Your task to perform on an android device: Search for hotels in London Image 0: 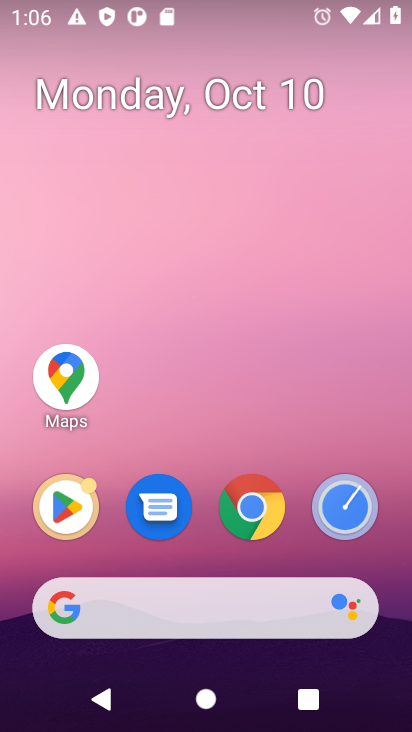
Step 0: press home button
Your task to perform on an android device: Search for hotels in London Image 1: 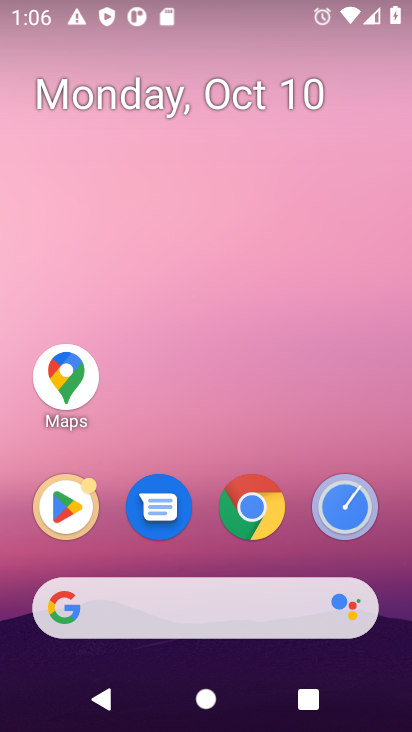
Step 1: press home button
Your task to perform on an android device: Search for hotels in London Image 2: 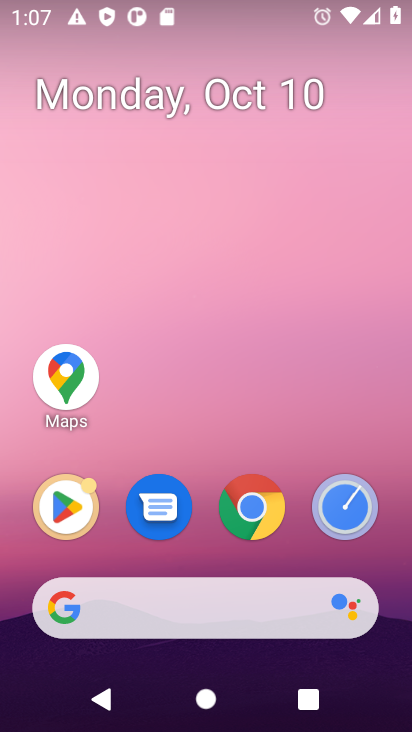
Step 2: click (174, 613)
Your task to perform on an android device: Search for hotels in London Image 3: 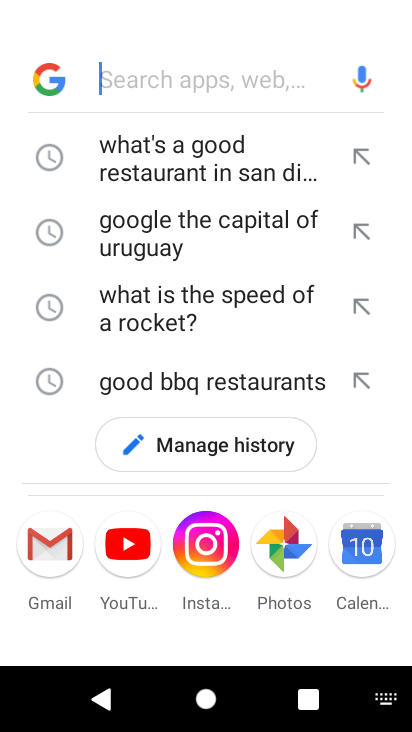
Step 3: type "Search for hotels in London"
Your task to perform on an android device: Search for hotels in London Image 4: 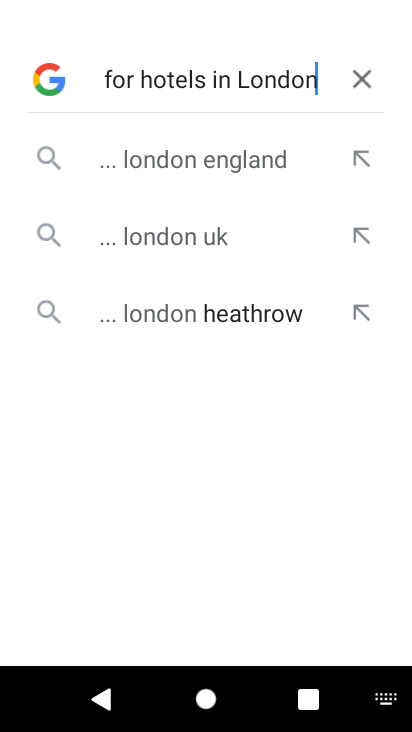
Step 4: press enter
Your task to perform on an android device: Search for hotels in London Image 5: 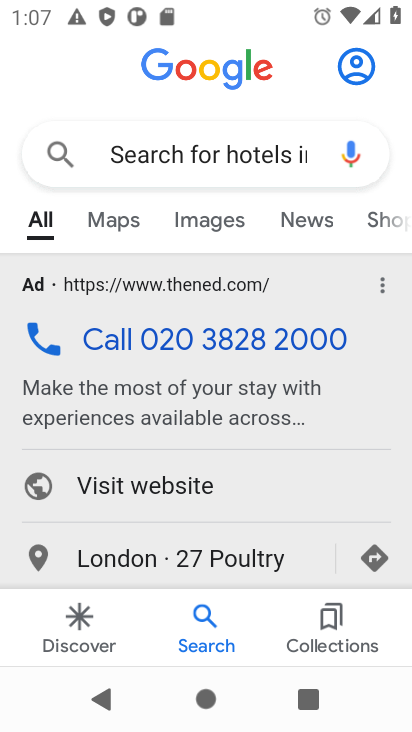
Step 5: drag from (306, 497) to (309, 258)
Your task to perform on an android device: Search for hotels in London Image 6: 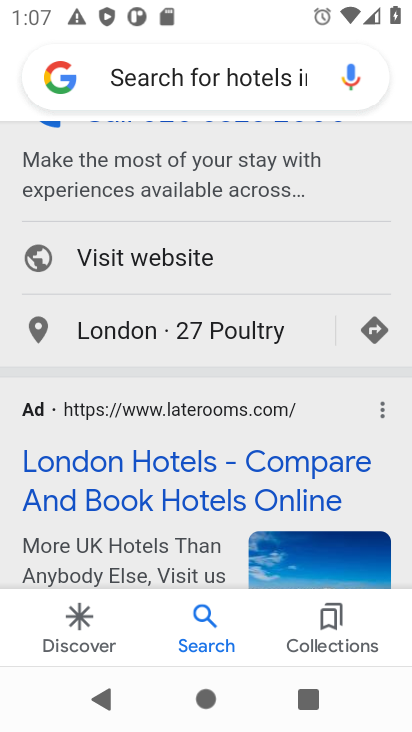
Step 6: click (216, 472)
Your task to perform on an android device: Search for hotels in London Image 7: 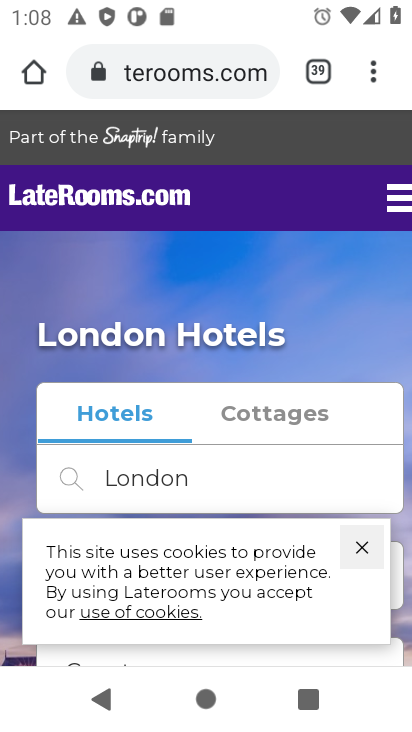
Step 7: click (362, 545)
Your task to perform on an android device: Search for hotels in London Image 8: 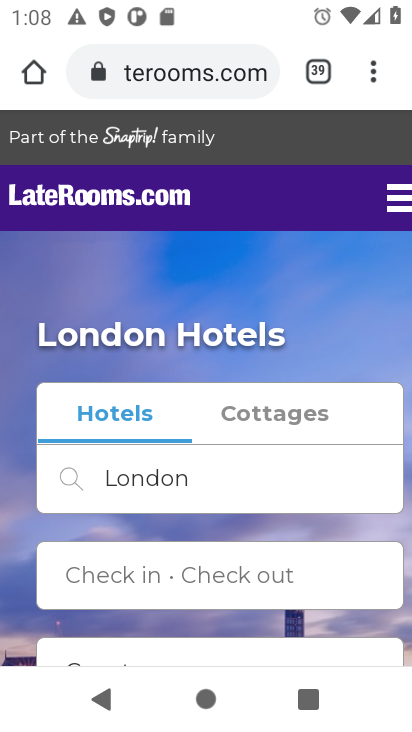
Step 8: drag from (319, 511) to (335, 137)
Your task to perform on an android device: Search for hotels in London Image 9: 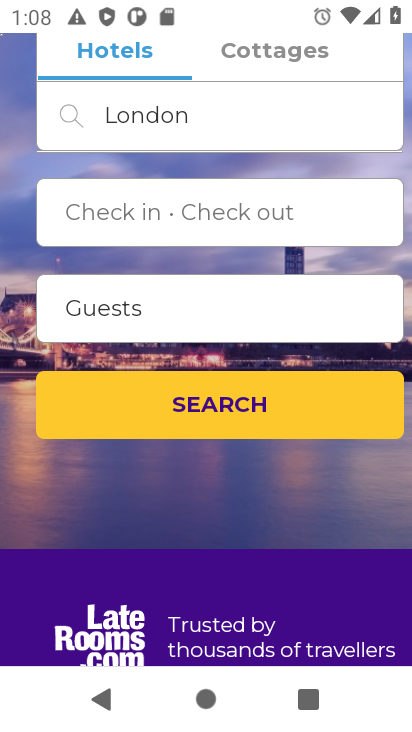
Step 9: drag from (315, 550) to (315, 177)
Your task to perform on an android device: Search for hotels in London Image 10: 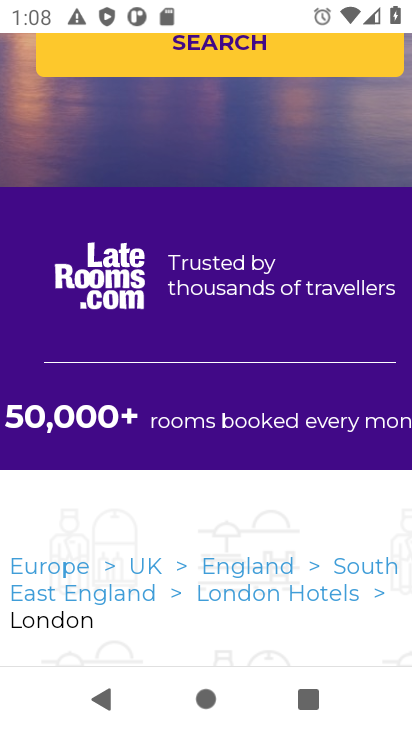
Step 10: drag from (309, 541) to (325, 233)
Your task to perform on an android device: Search for hotels in London Image 11: 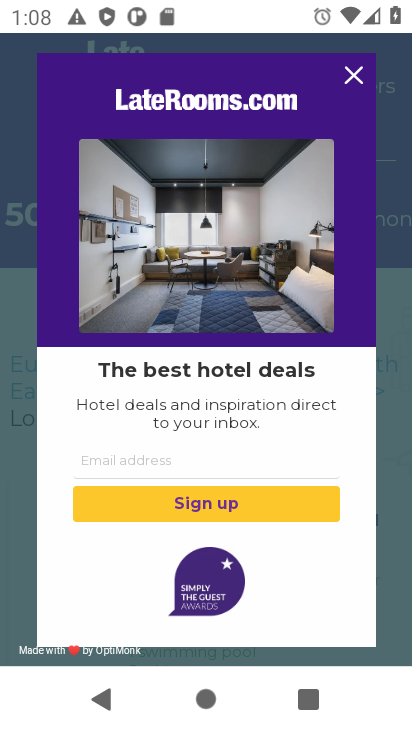
Step 11: click (362, 75)
Your task to perform on an android device: Search for hotels in London Image 12: 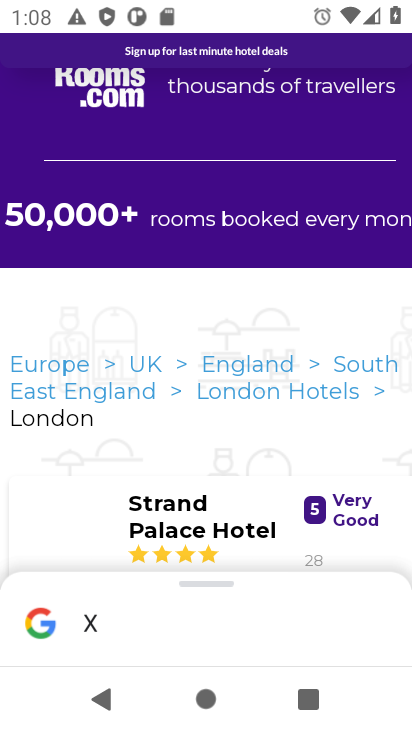
Step 12: task complete